Your task to perform on an android device: Open calendar and show me the second week of next month Image 0: 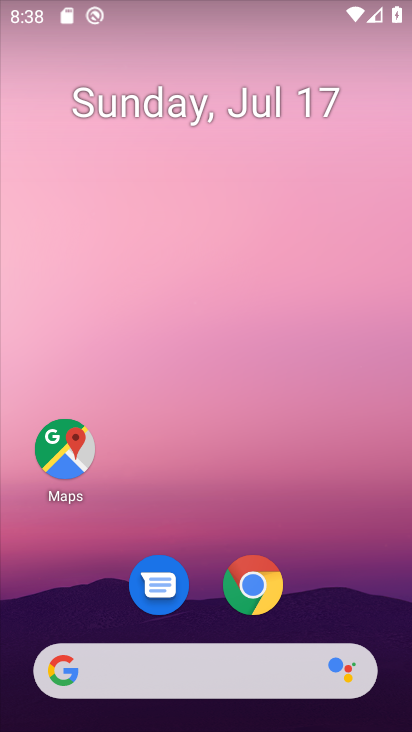
Step 0: drag from (308, 573) to (279, 34)
Your task to perform on an android device: Open calendar and show me the second week of next month Image 1: 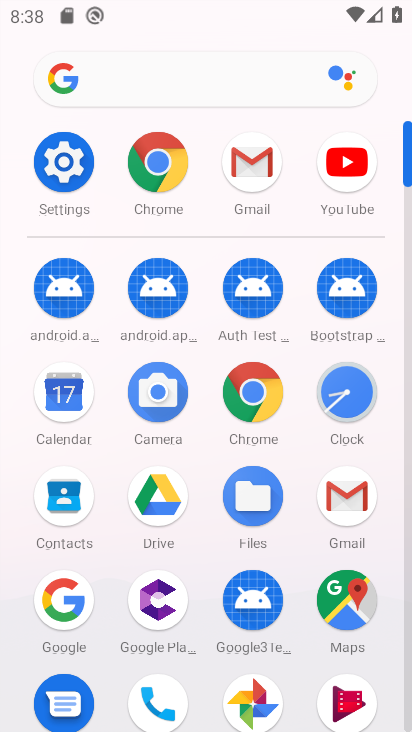
Step 1: click (73, 400)
Your task to perform on an android device: Open calendar and show me the second week of next month Image 2: 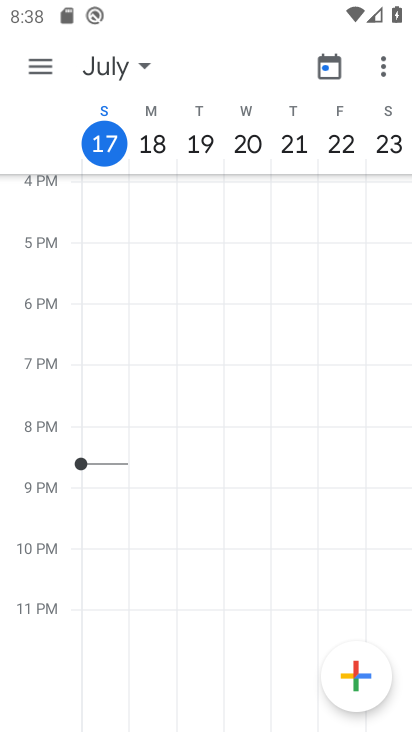
Step 2: task complete